Your task to perform on an android device: open device folders in google photos Image 0: 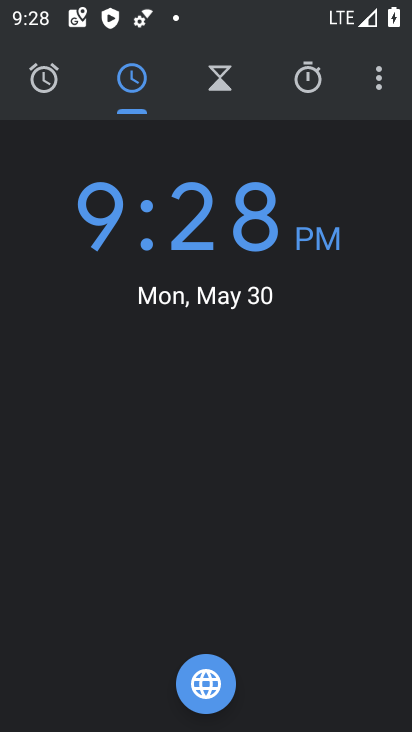
Step 0: press home button
Your task to perform on an android device: open device folders in google photos Image 1: 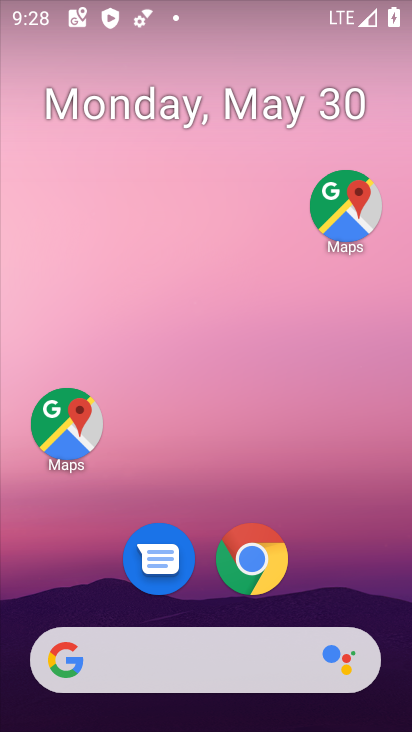
Step 1: drag from (318, 522) to (285, 82)
Your task to perform on an android device: open device folders in google photos Image 2: 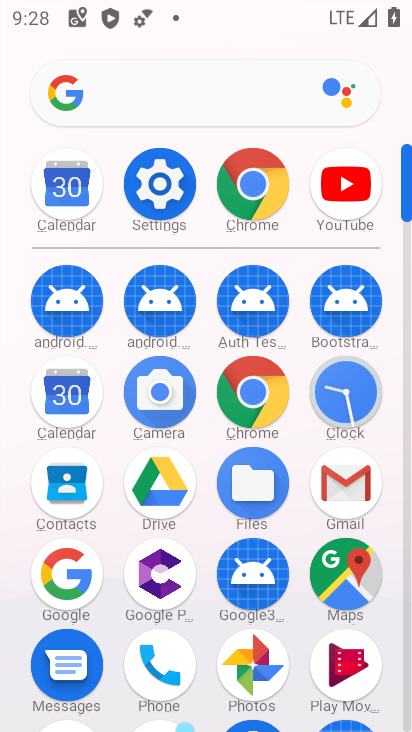
Step 2: click (268, 663)
Your task to perform on an android device: open device folders in google photos Image 3: 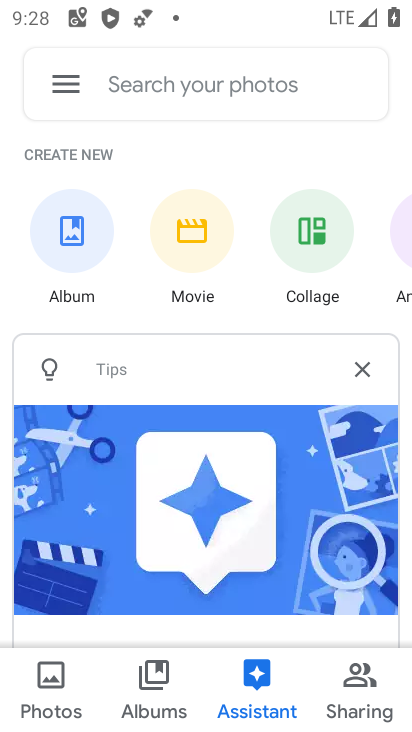
Step 3: click (54, 63)
Your task to perform on an android device: open device folders in google photos Image 4: 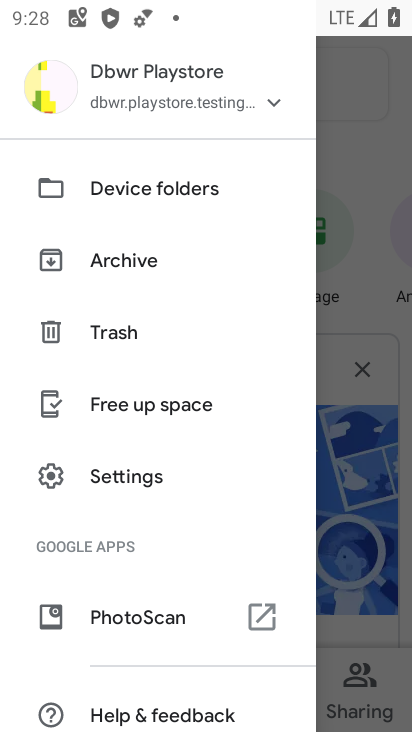
Step 4: click (124, 196)
Your task to perform on an android device: open device folders in google photos Image 5: 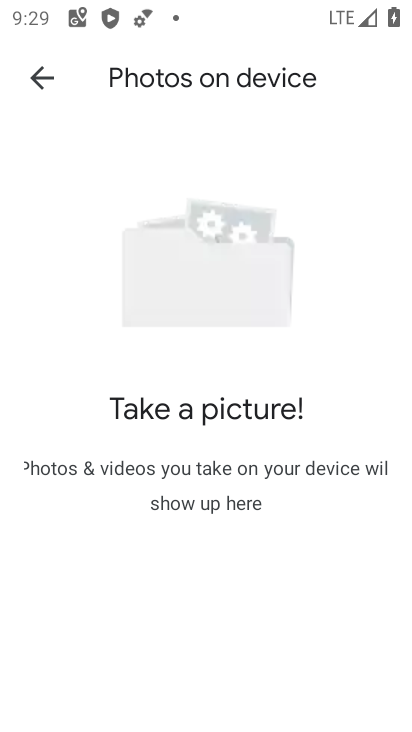
Step 5: task complete